Your task to perform on an android device: Open Chrome and go to settings Image 0: 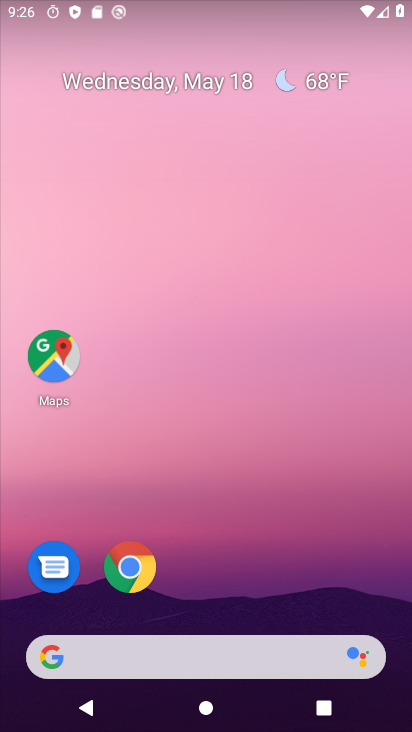
Step 0: click (140, 580)
Your task to perform on an android device: Open Chrome and go to settings Image 1: 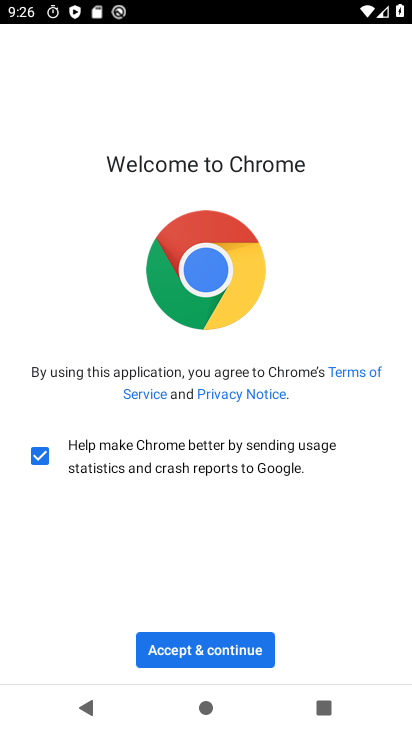
Step 1: click (235, 635)
Your task to perform on an android device: Open Chrome and go to settings Image 2: 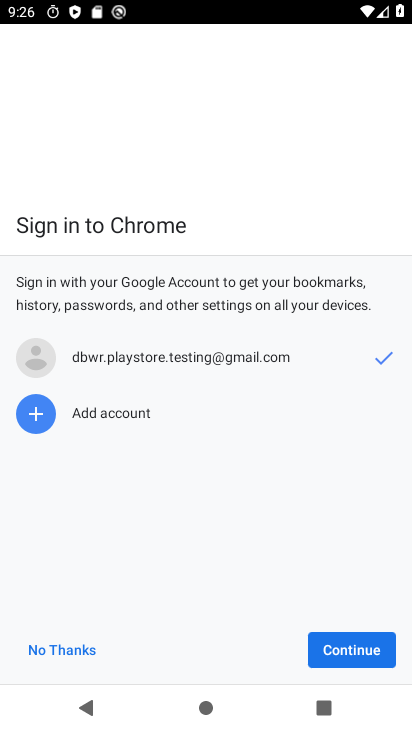
Step 2: click (352, 658)
Your task to perform on an android device: Open Chrome and go to settings Image 3: 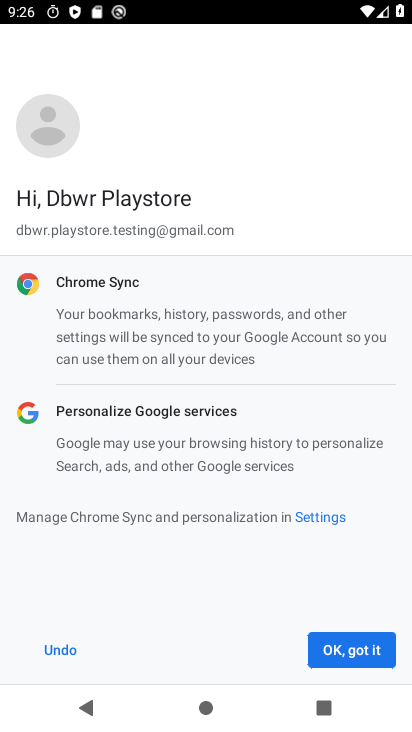
Step 3: click (331, 663)
Your task to perform on an android device: Open Chrome and go to settings Image 4: 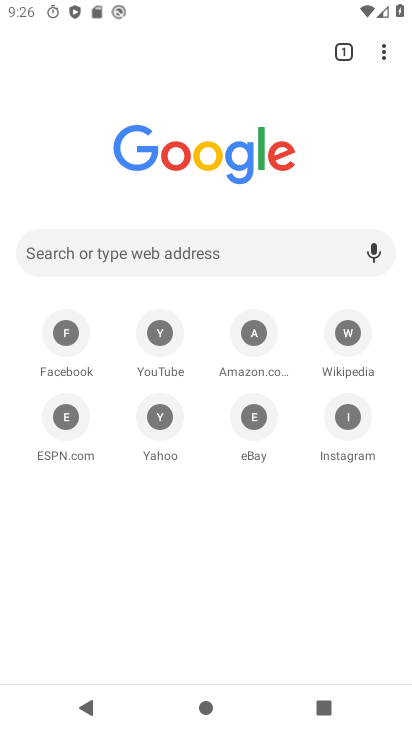
Step 4: click (379, 53)
Your task to perform on an android device: Open Chrome and go to settings Image 5: 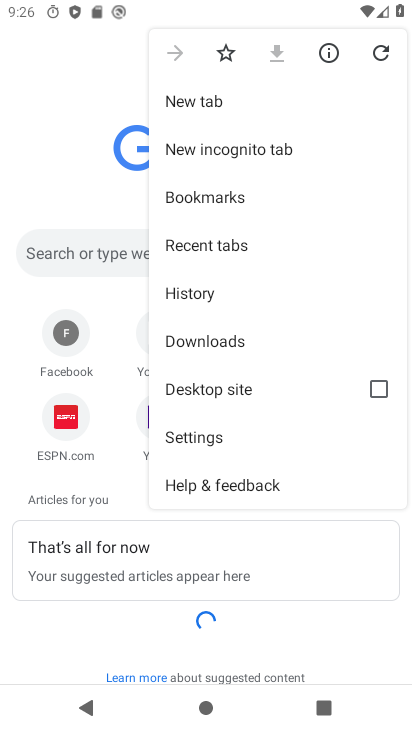
Step 5: drag from (313, 487) to (314, 185)
Your task to perform on an android device: Open Chrome and go to settings Image 6: 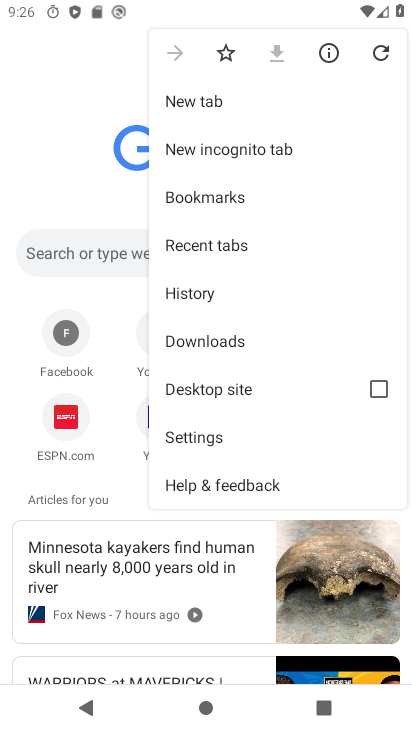
Step 6: click (243, 418)
Your task to perform on an android device: Open Chrome and go to settings Image 7: 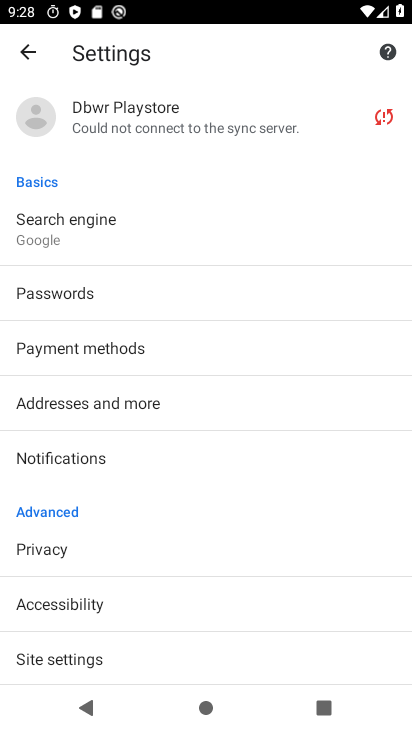
Step 7: task complete